Your task to perform on an android device: Search for "usb-c" on walmart, select the first entry, and add it to the cart. Image 0: 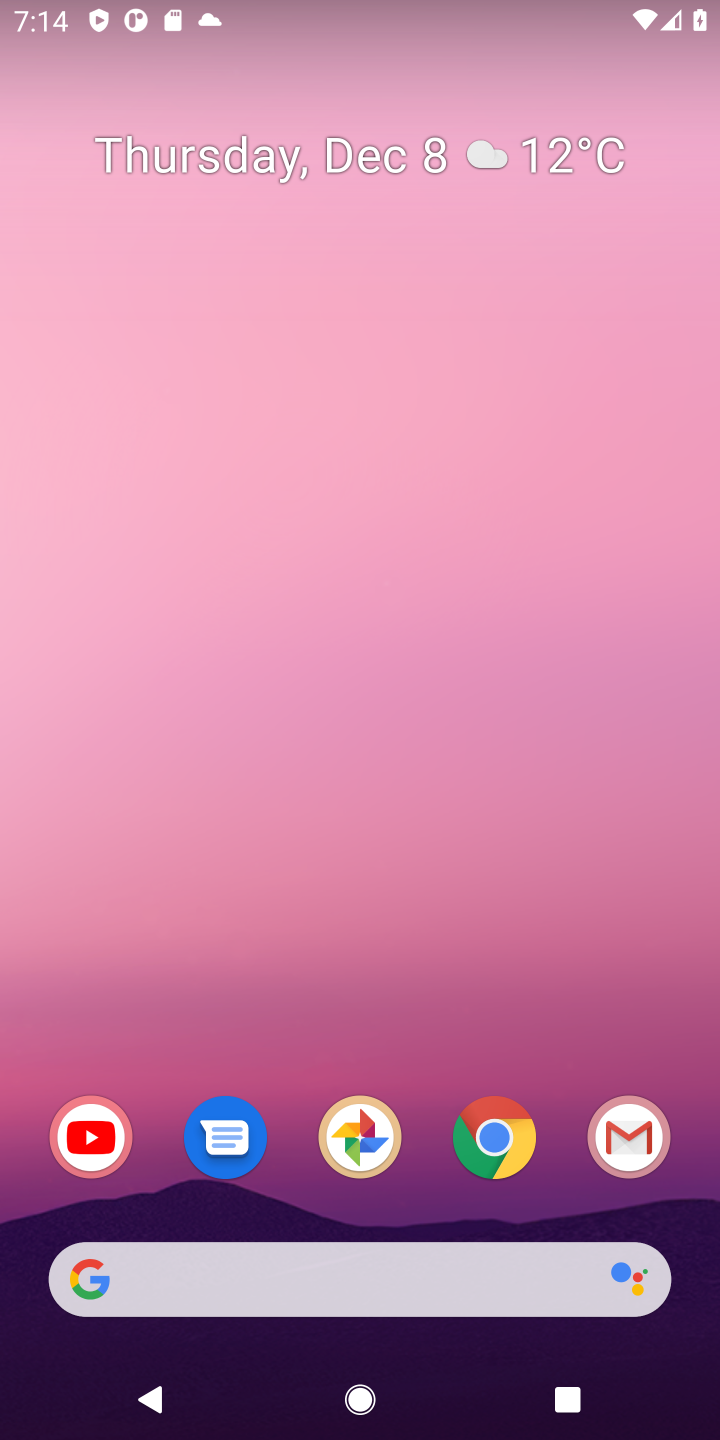
Step 0: click (496, 1133)
Your task to perform on an android device: Search for "usb-c" on walmart, select the first entry, and add it to the cart. Image 1: 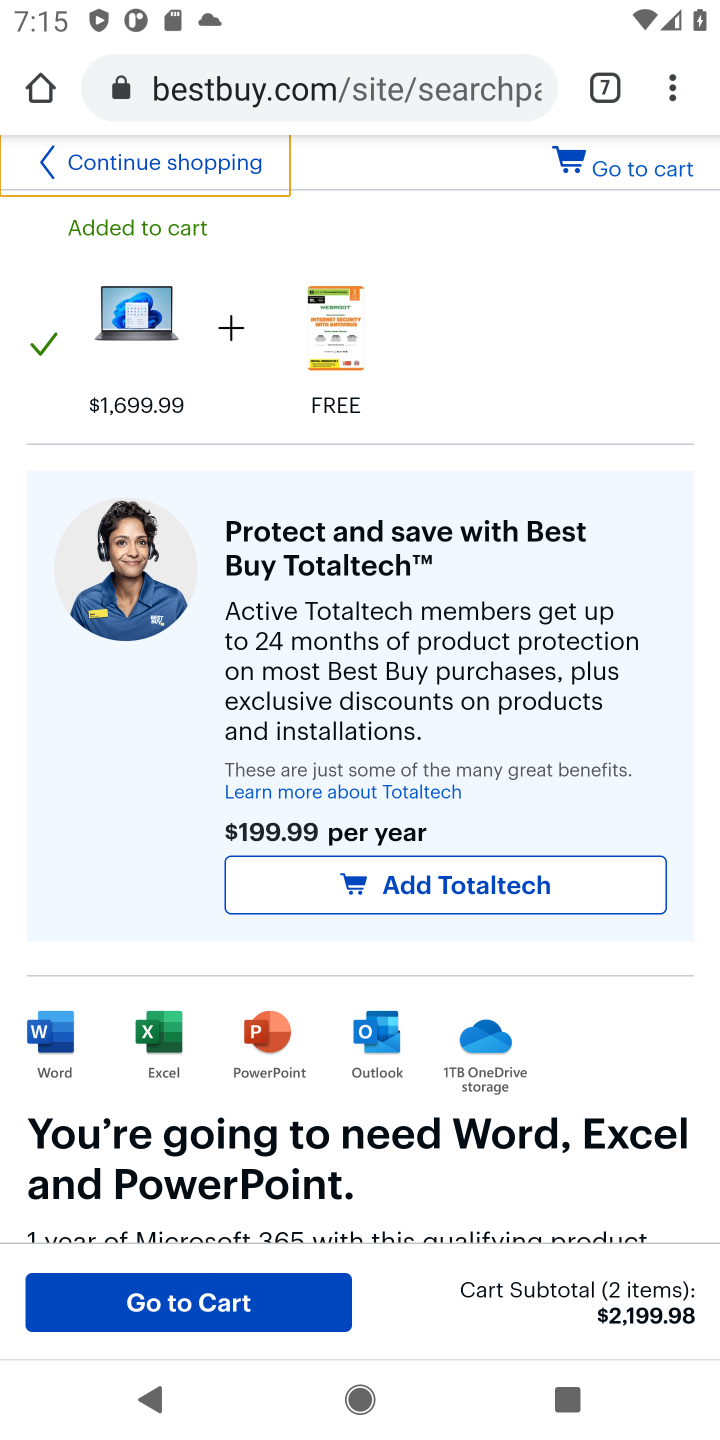
Step 1: click (620, 88)
Your task to perform on an android device: Search for "usb-c" on walmart, select the first entry, and add it to the cart. Image 2: 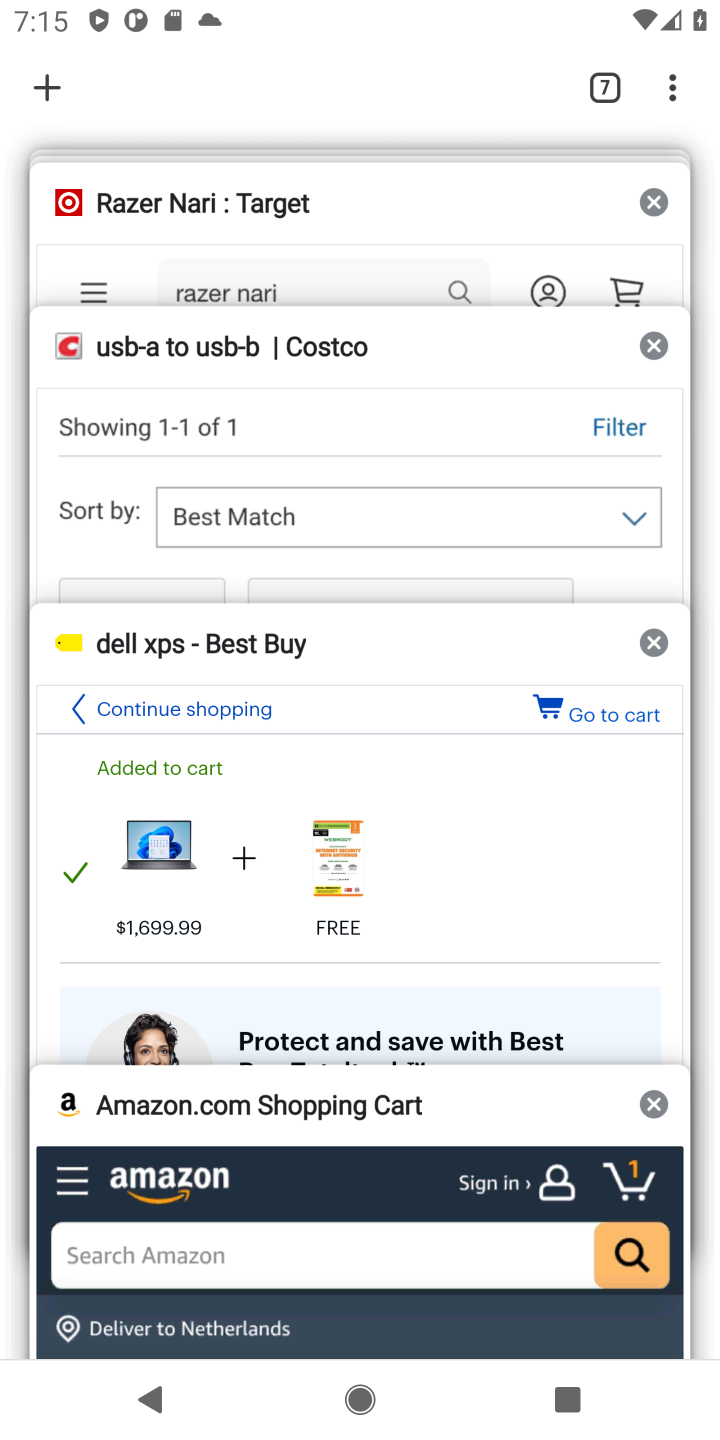
Step 2: drag from (465, 212) to (466, 577)
Your task to perform on an android device: Search for "usb-c" on walmart, select the first entry, and add it to the cart. Image 3: 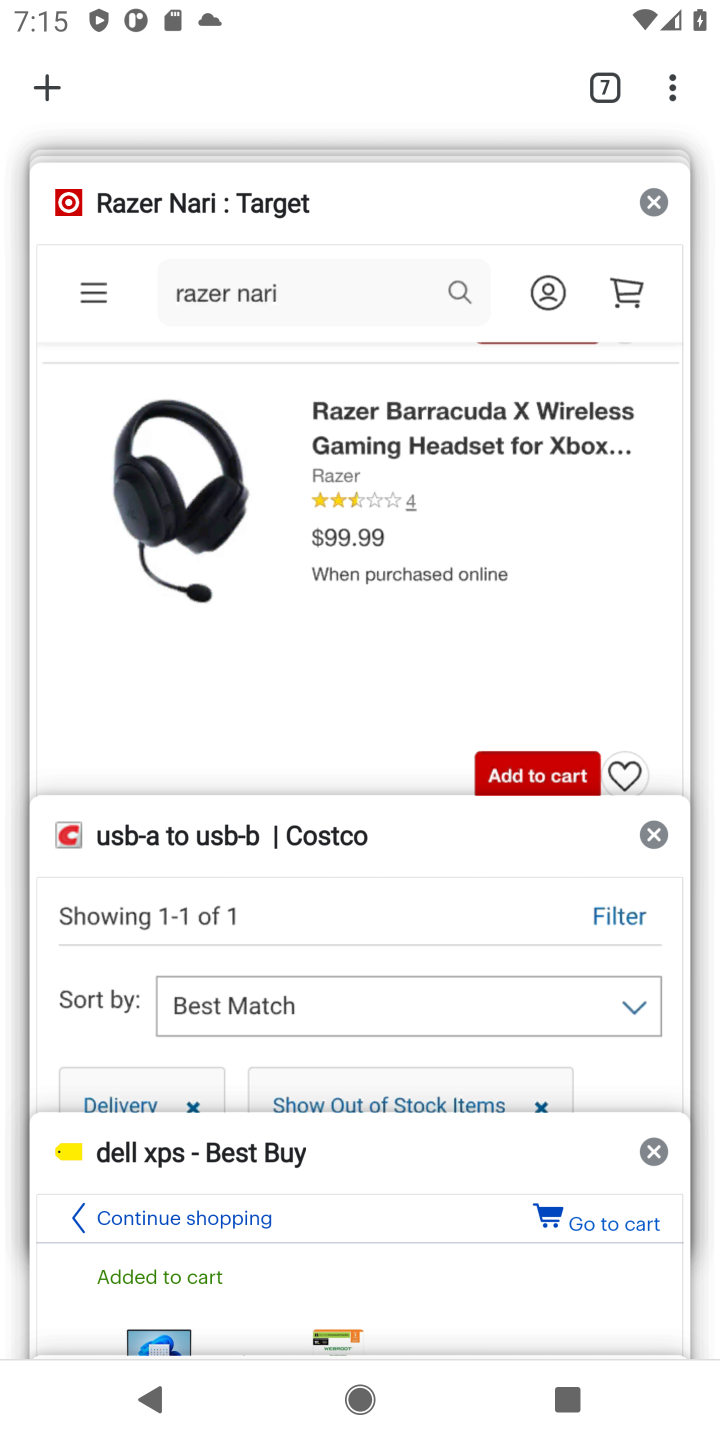
Step 3: drag from (504, 189) to (363, 729)
Your task to perform on an android device: Search for "usb-c" on walmart, select the first entry, and add it to the cart. Image 4: 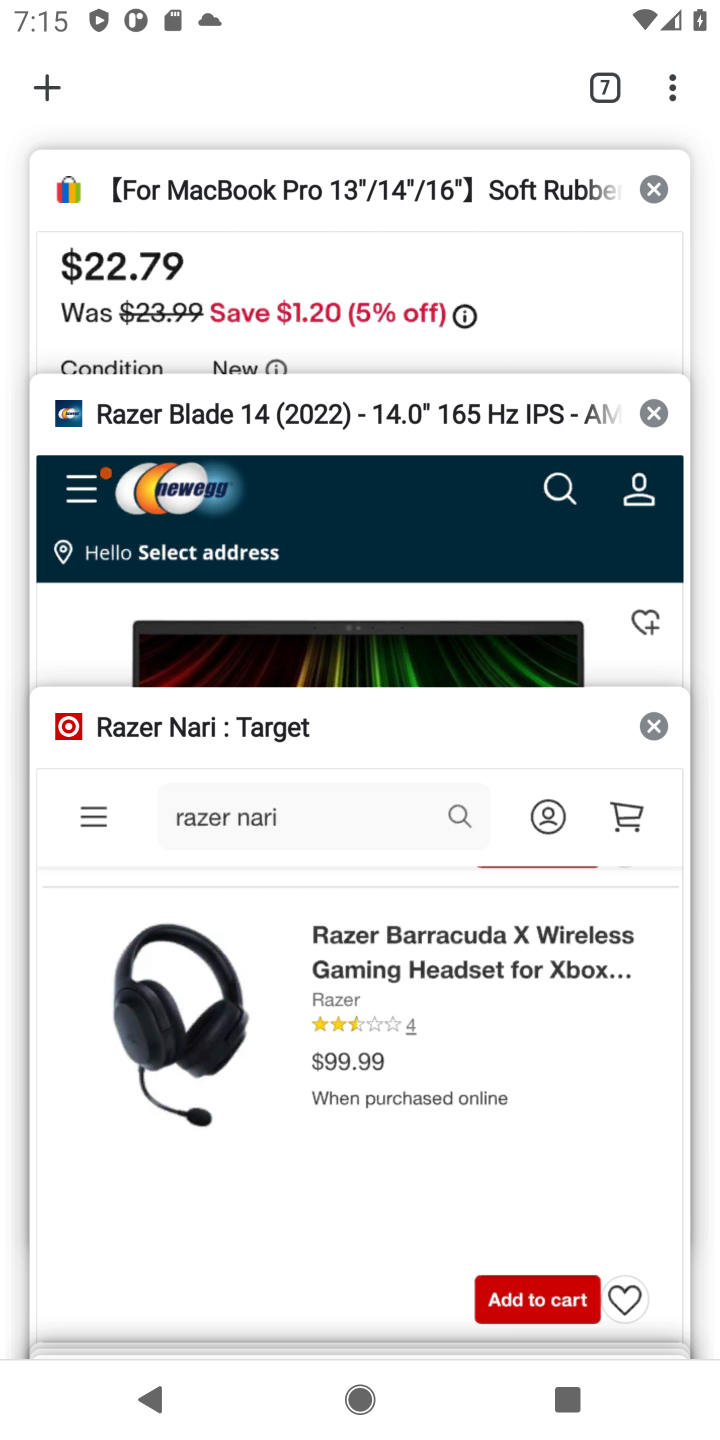
Step 4: drag from (198, 1108) to (301, 741)
Your task to perform on an android device: Search for "usb-c" on walmart, select the first entry, and add it to the cart. Image 5: 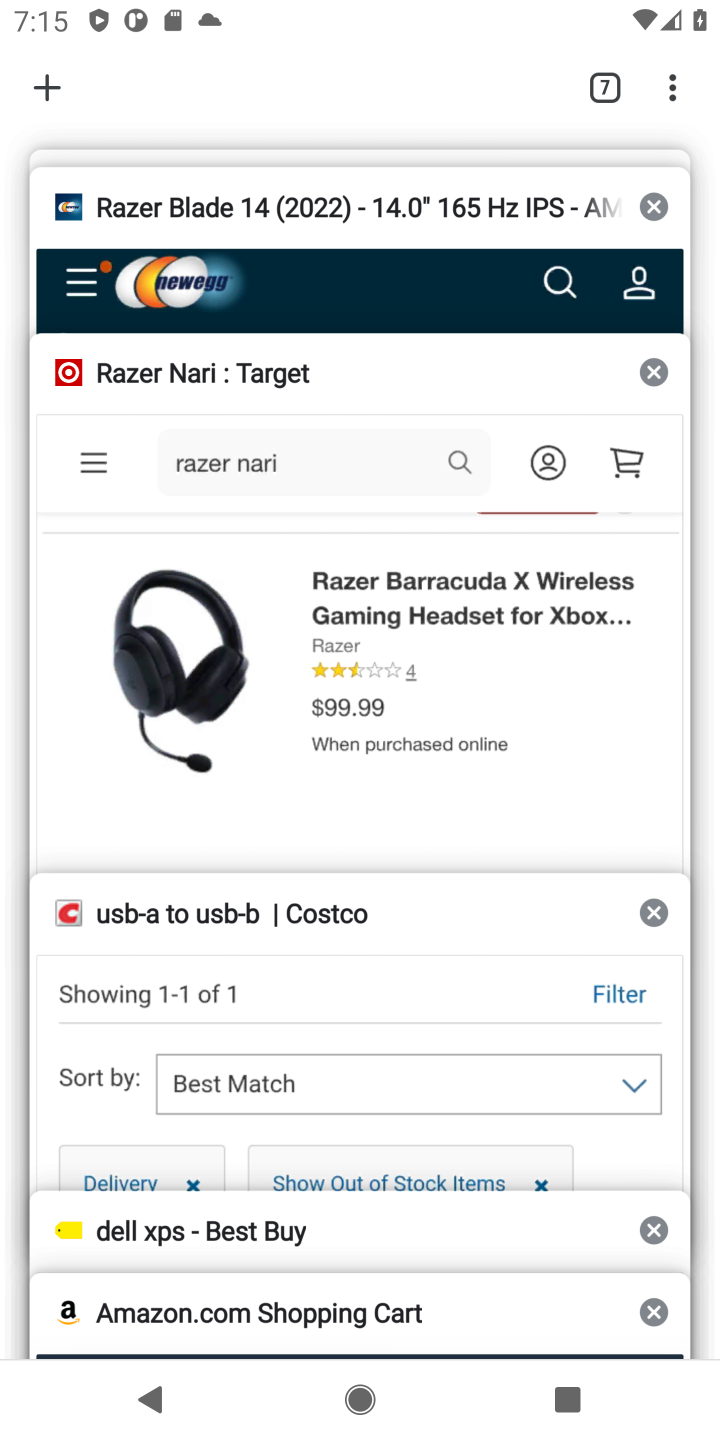
Step 5: drag from (243, 1316) to (355, 658)
Your task to perform on an android device: Search for "usb-c" on walmart, select the first entry, and add it to the cart. Image 6: 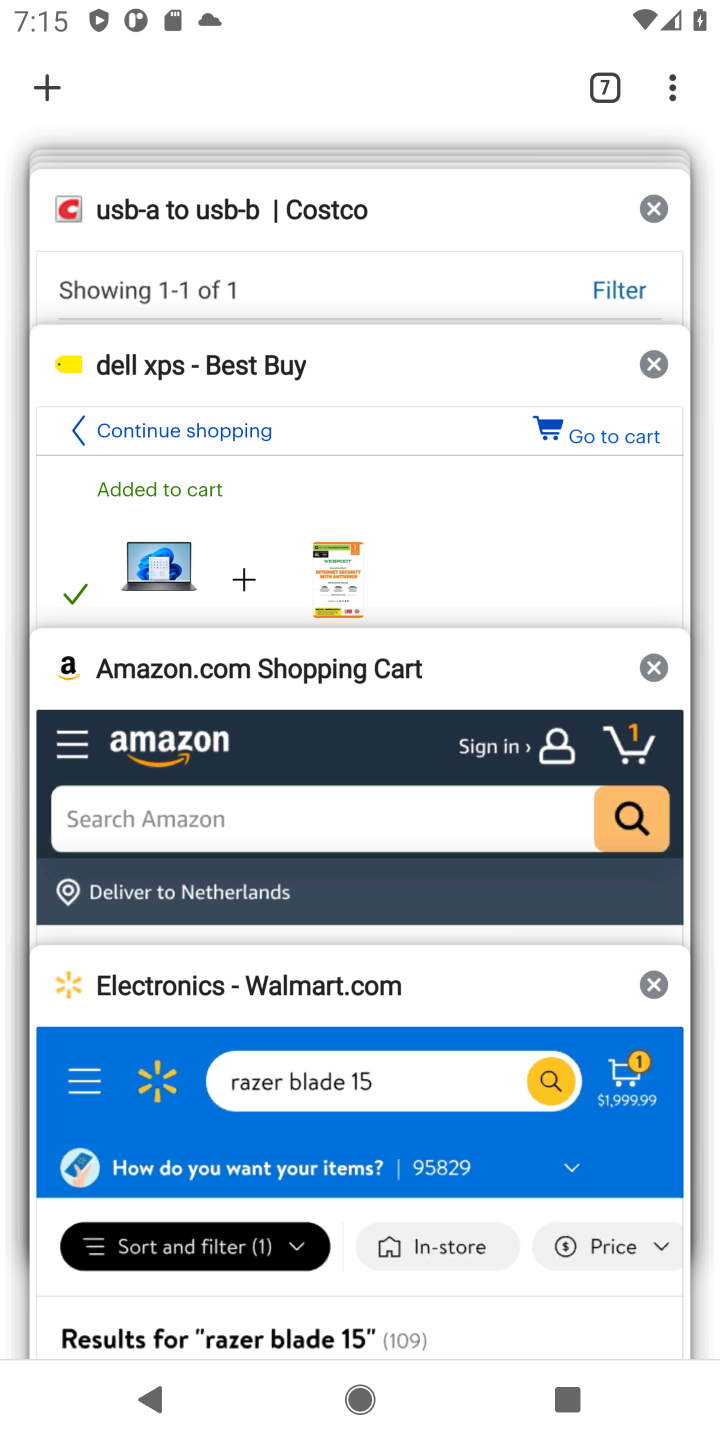
Step 6: click (87, 1030)
Your task to perform on an android device: Search for "usb-c" on walmart, select the first entry, and add it to the cart. Image 7: 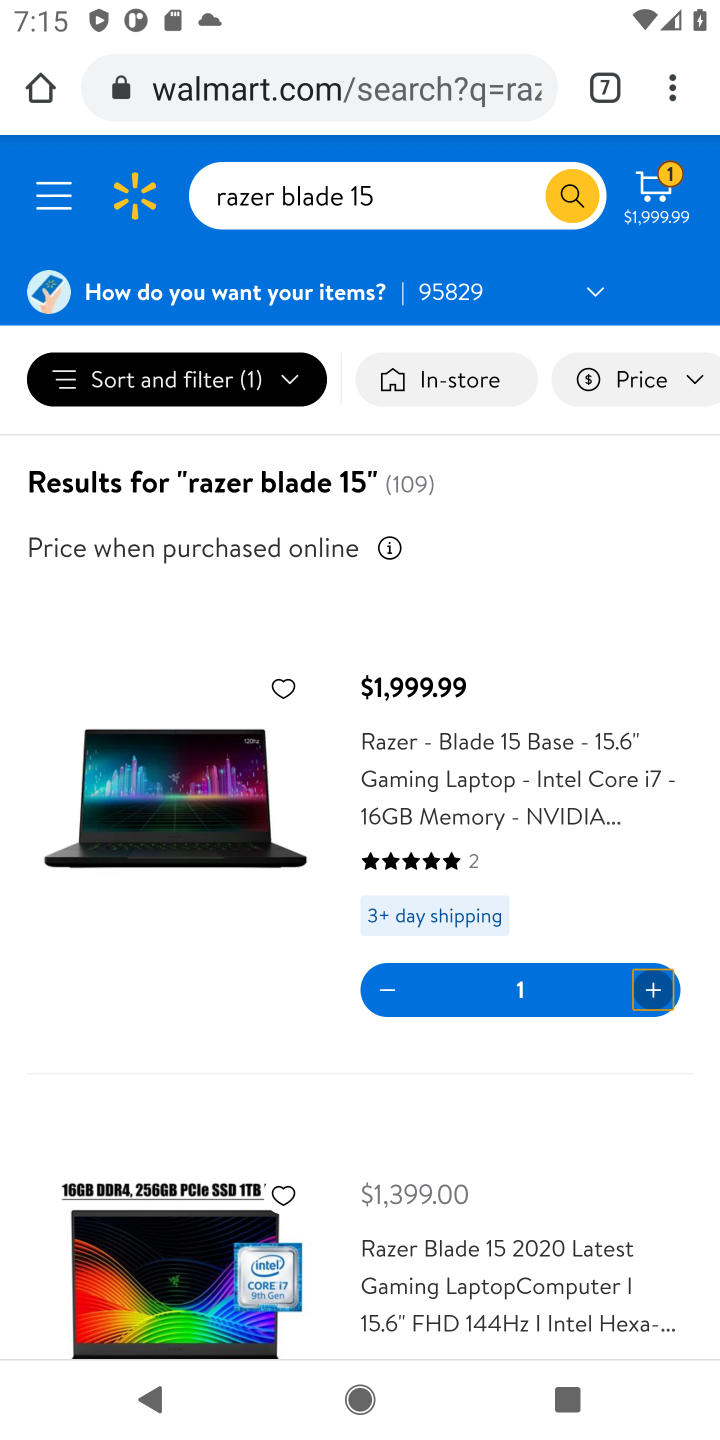
Step 7: click (450, 202)
Your task to perform on an android device: Search for "usb-c" on walmart, select the first entry, and add it to the cart. Image 8: 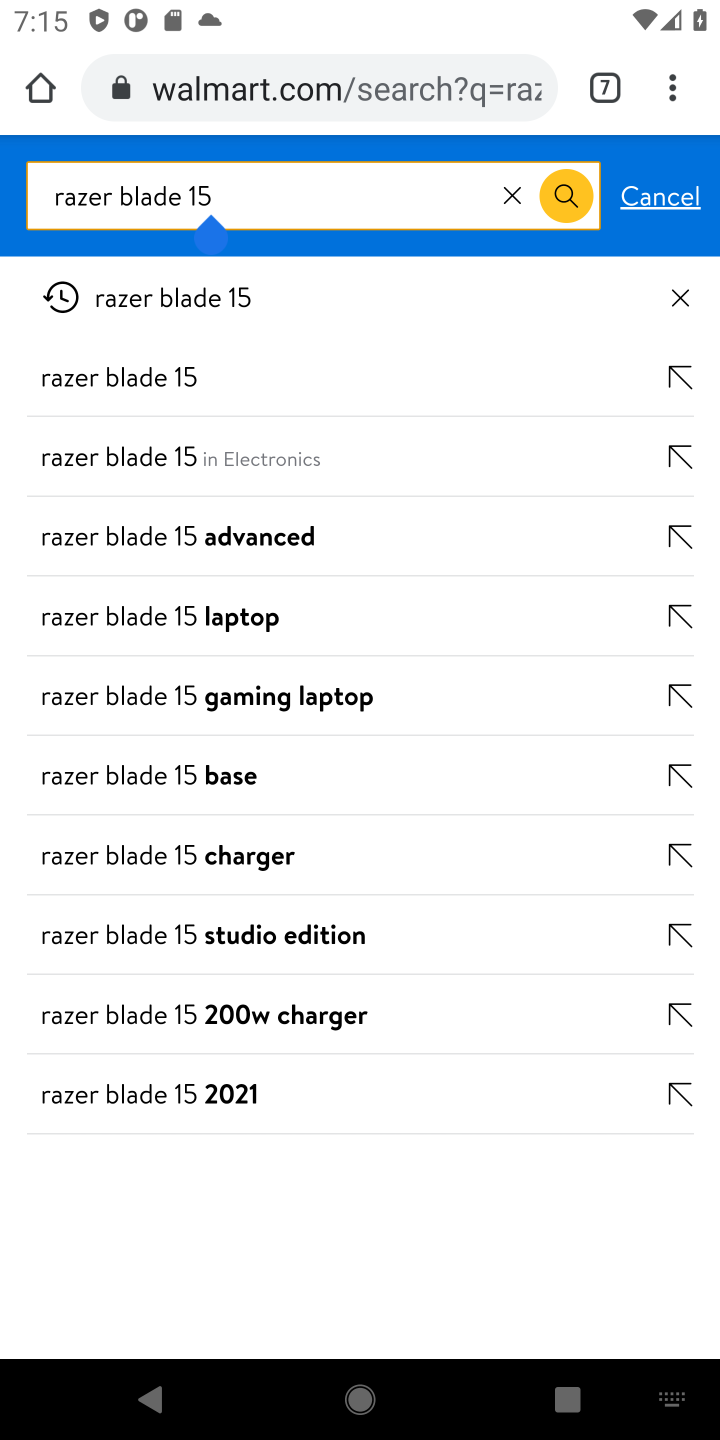
Step 8: click (518, 194)
Your task to perform on an android device: Search for "usb-c" on walmart, select the first entry, and add it to the cart. Image 9: 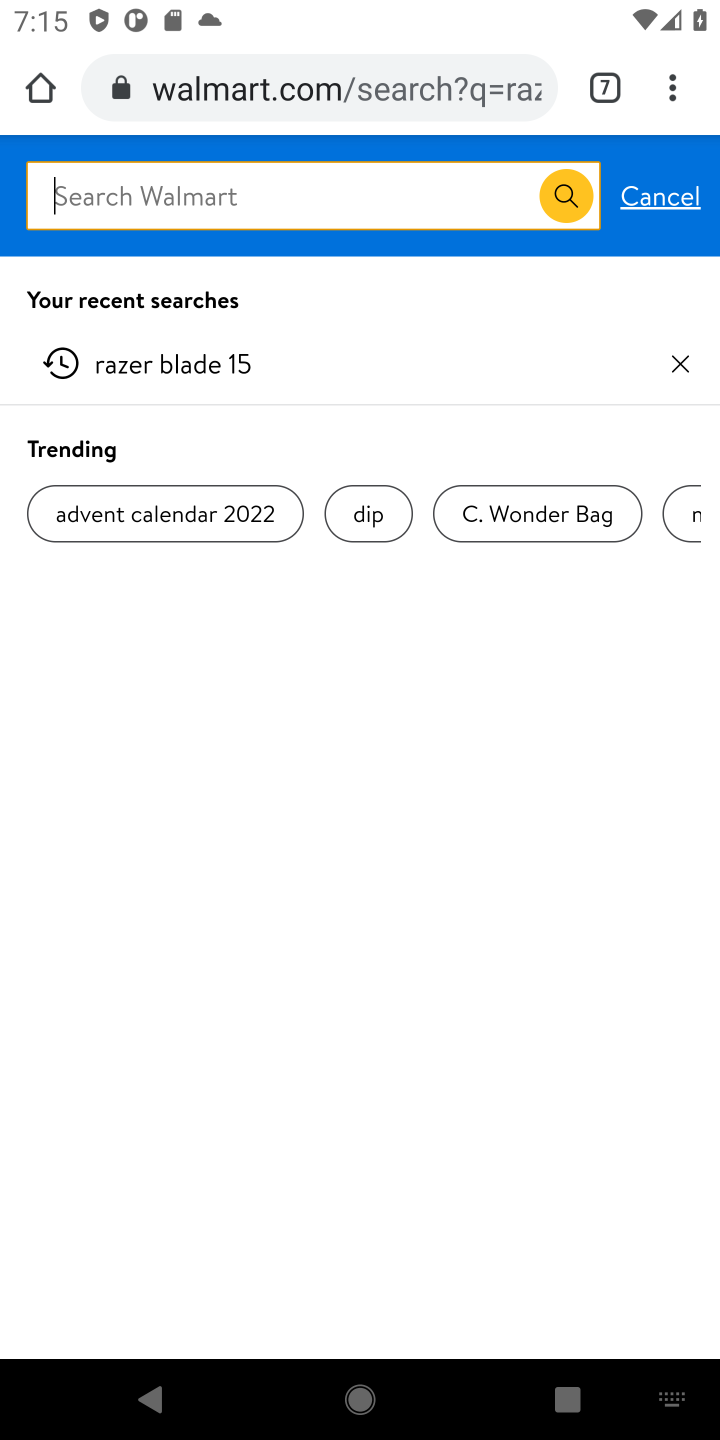
Step 9: type "usb-c"
Your task to perform on an android device: Search for "usb-c" on walmart, select the first entry, and add it to the cart. Image 10: 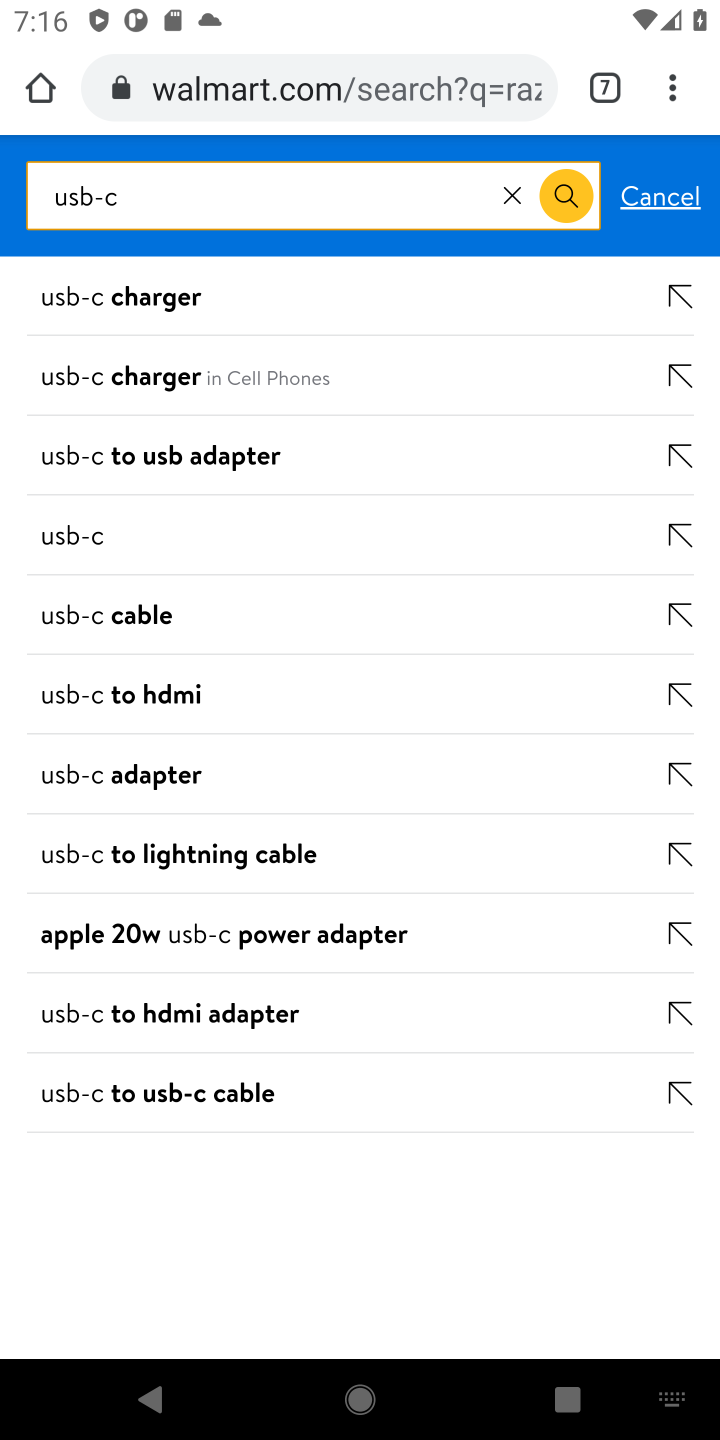
Step 10: click (154, 295)
Your task to perform on an android device: Search for "usb-c" on walmart, select the first entry, and add it to the cart. Image 11: 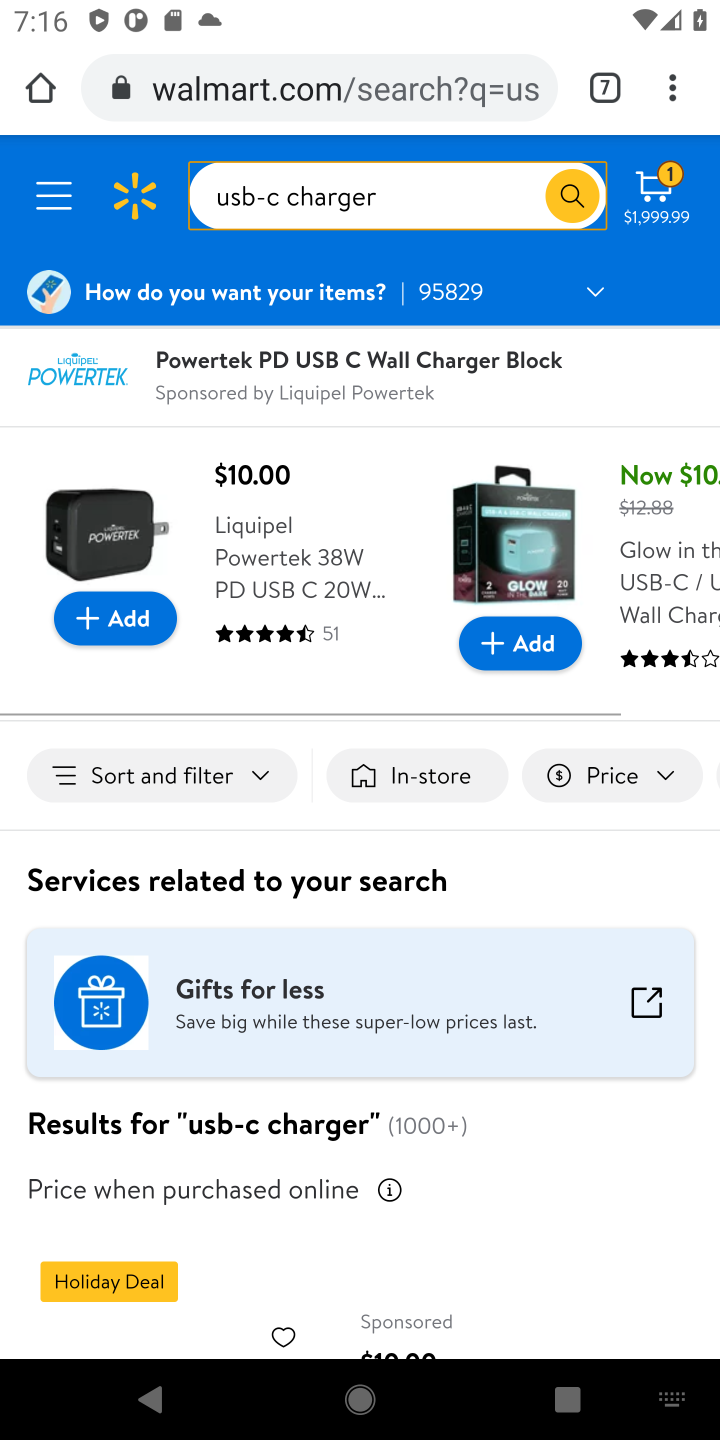
Step 11: drag from (569, 1129) to (524, 398)
Your task to perform on an android device: Search for "usb-c" on walmart, select the first entry, and add it to the cart. Image 12: 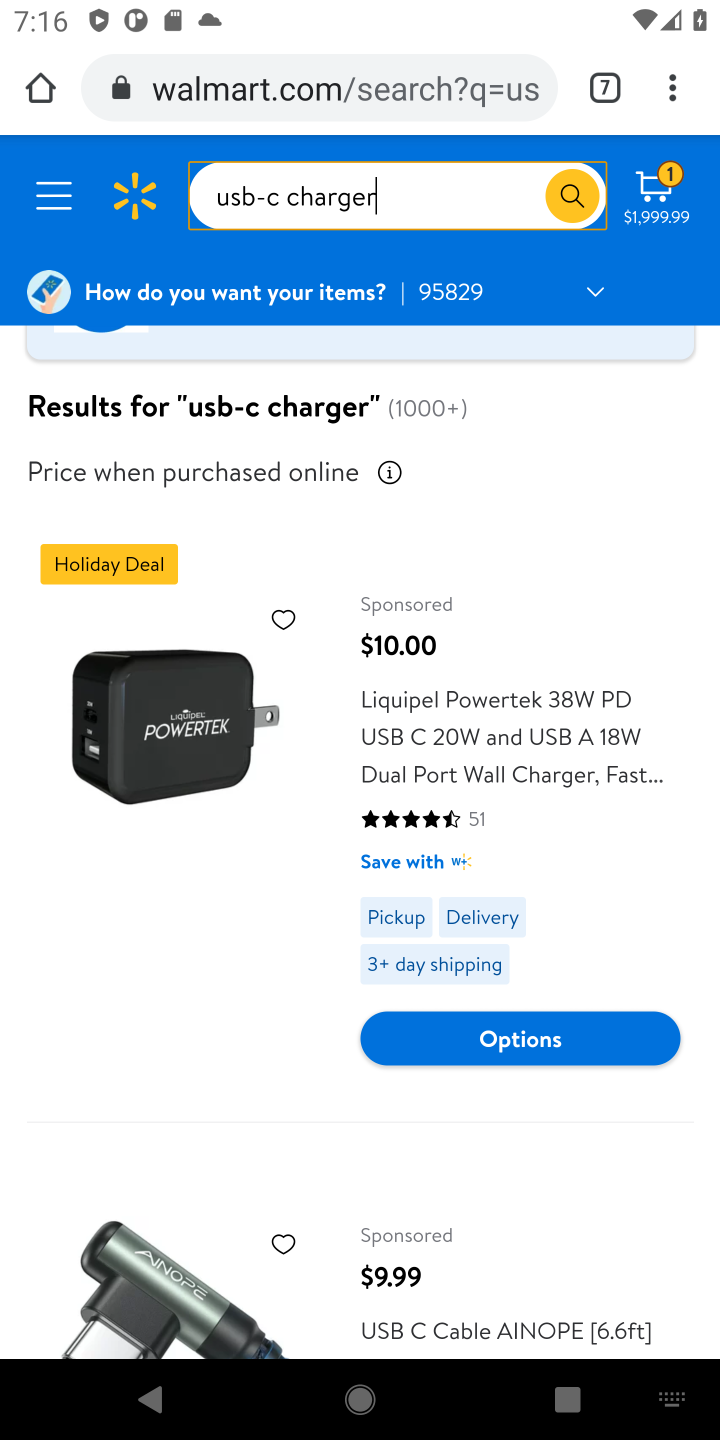
Step 12: click (576, 750)
Your task to perform on an android device: Search for "usb-c" on walmart, select the first entry, and add it to the cart. Image 13: 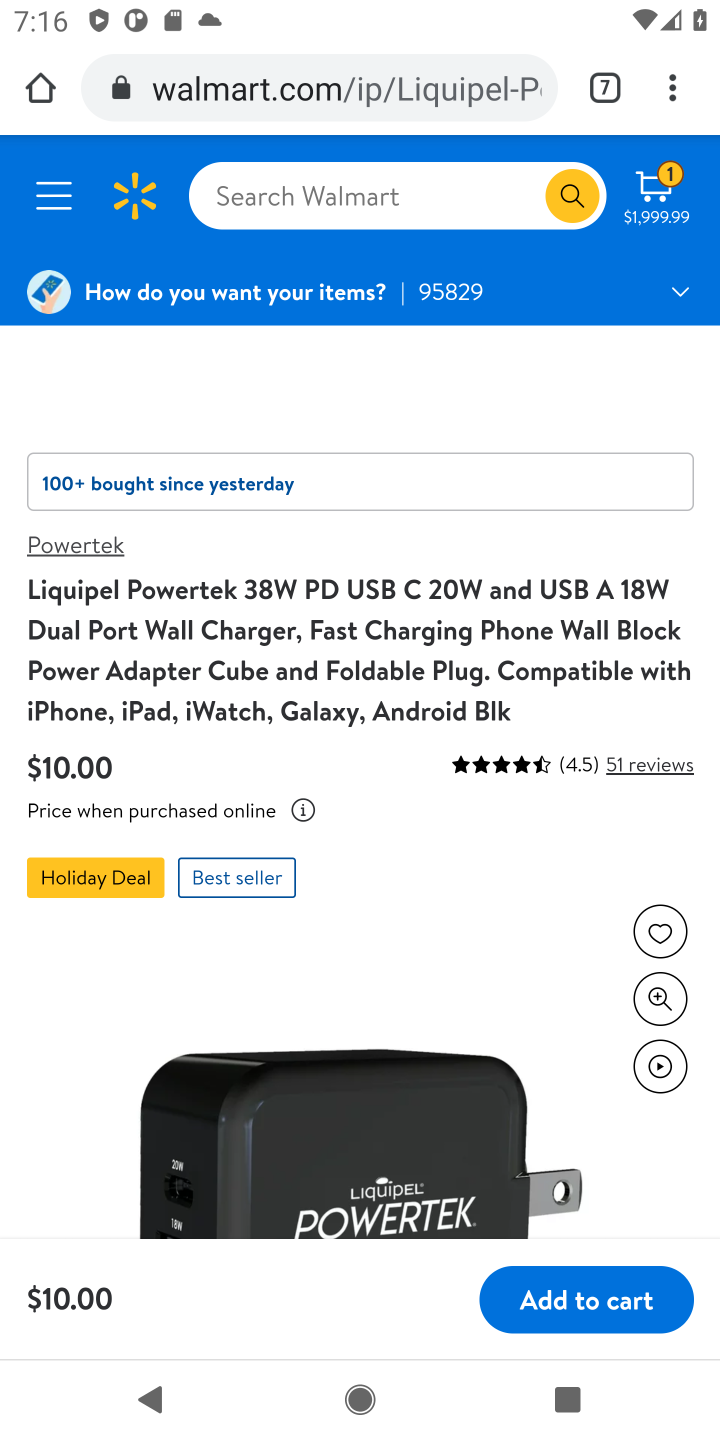
Step 13: click (588, 1303)
Your task to perform on an android device: Search for "usb-c" on walmart, select the first entry, and add it to the cart. Image 14: 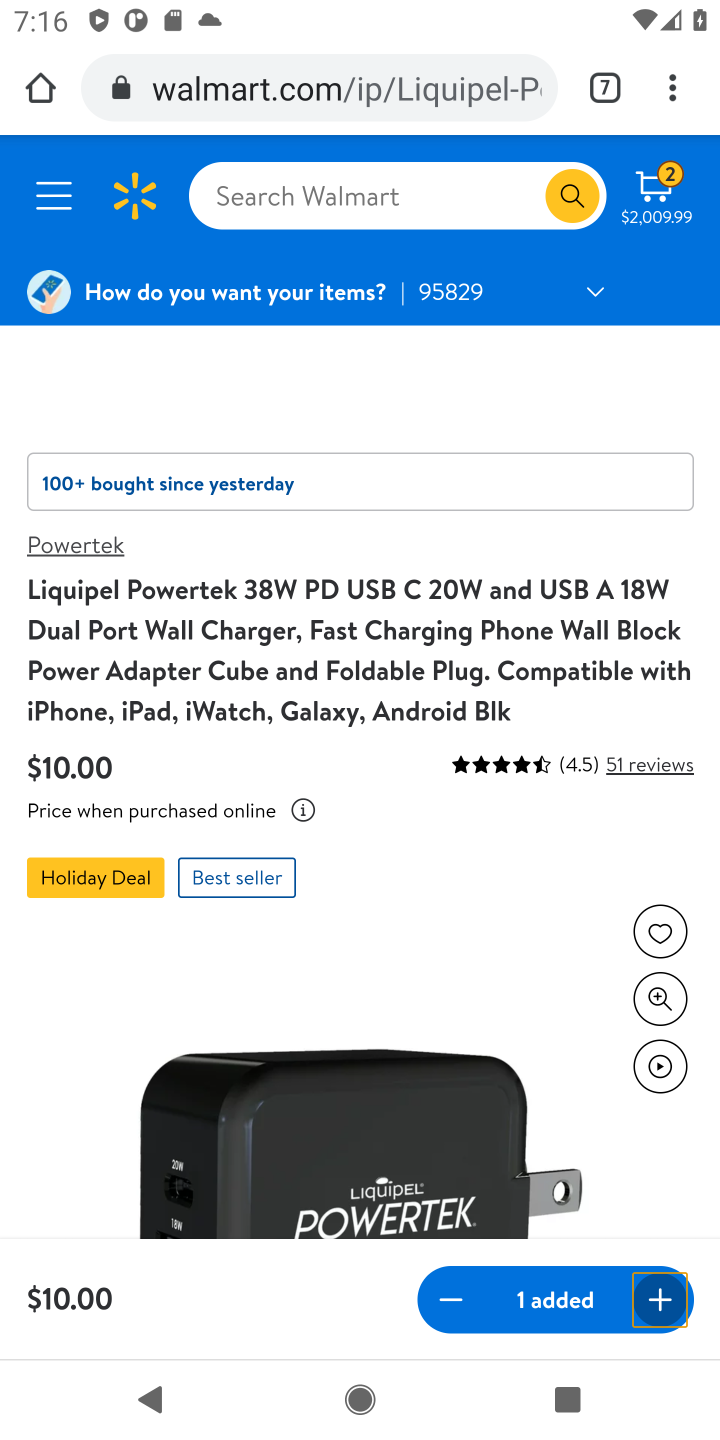
Step 14: task complete